Your task to perform on an android device: toggle priority inbox in the gmail app Image 0: 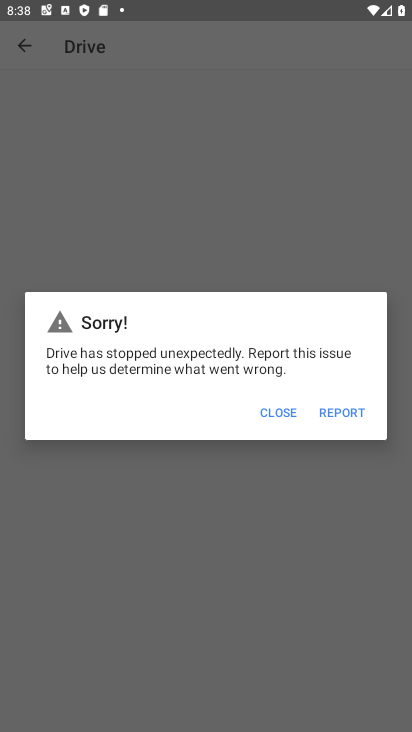
Step 0: press home button
Your task to perform on an android device: toggle priority inbox in the gmail app Image 1: 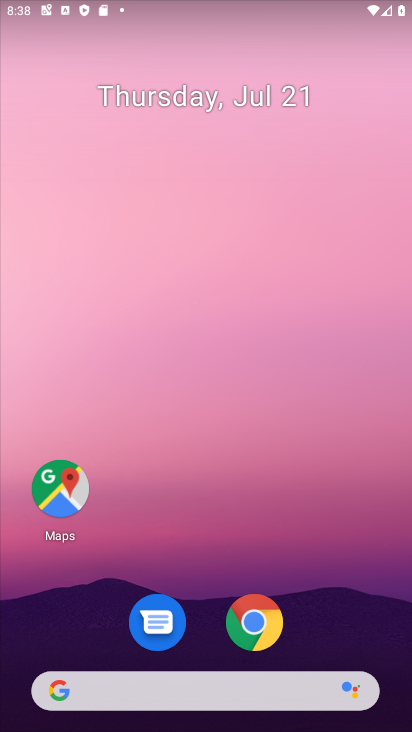
Step 1: drag from (215, 648) to (127, 27)
Your task to perform on an android device: toggle priority inbox in the gmail app Image 2: 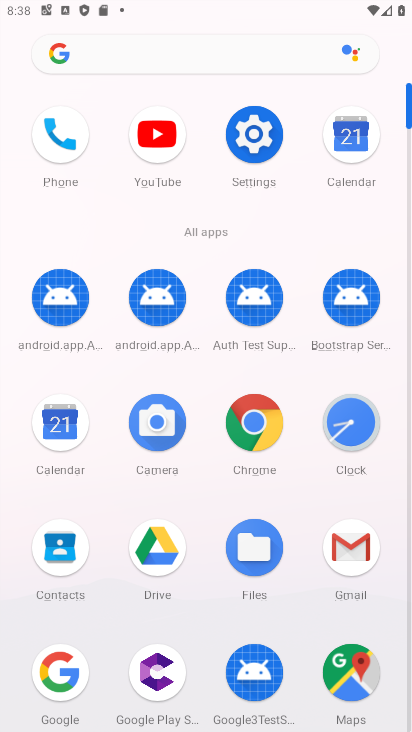
Step 2: click (362, 554)
Your task to perform on an android device: toggle priority inbox in the gmail app Image 3: 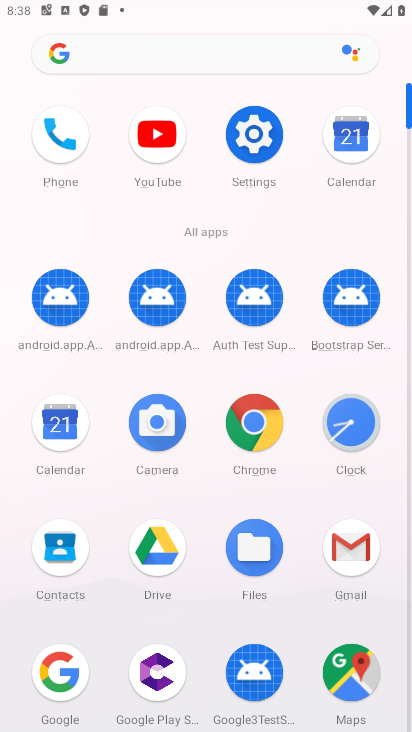
Step 3: click (362, 554)
Your task to perform on an android device: toggle priority inbox in the gmail app Image 4: 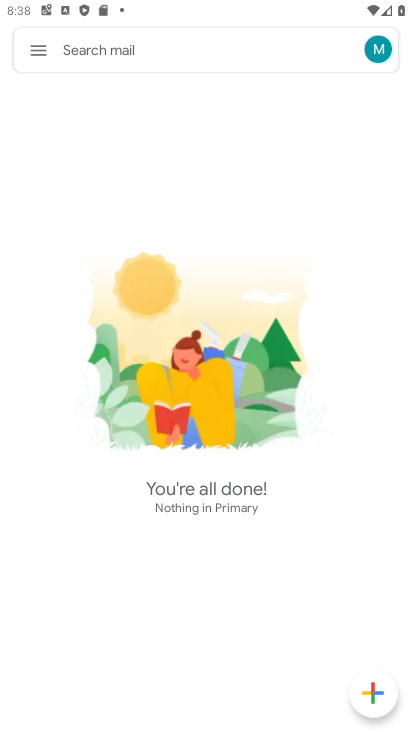
Step 4: click (28, 53)
Your task to perform on an android device: toggle priority inbox in the gmail app Image 5: 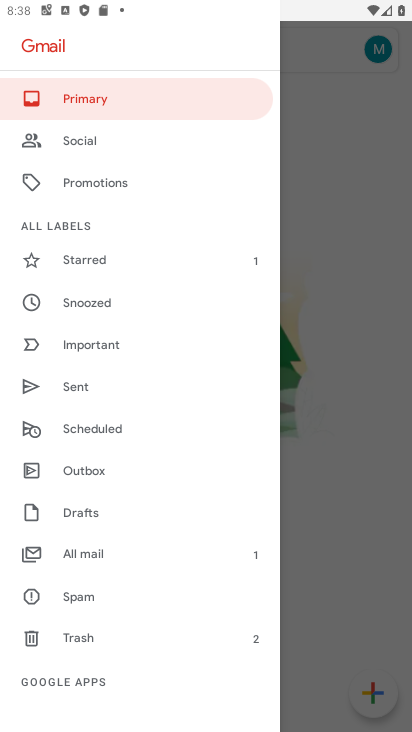
Step 5: drag from (117, 480) to (258, 28)
Your task to perform on an android device: toggle priority inbox in the gmail app Image 6: 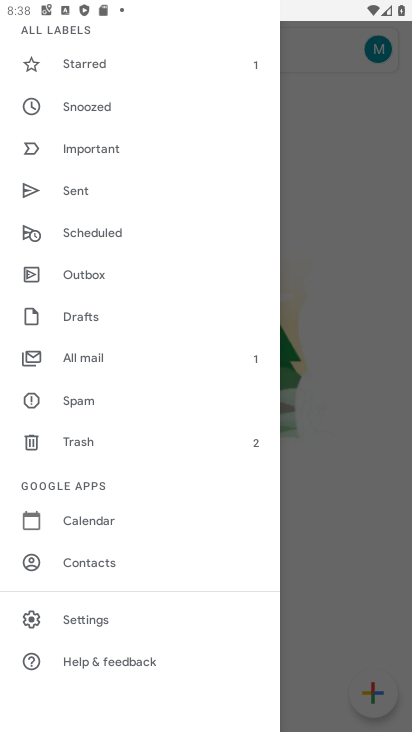
Step 6: click (97, 621)
Your task to perform on an android device: toggle priority inbox in the gmail app Image 7: 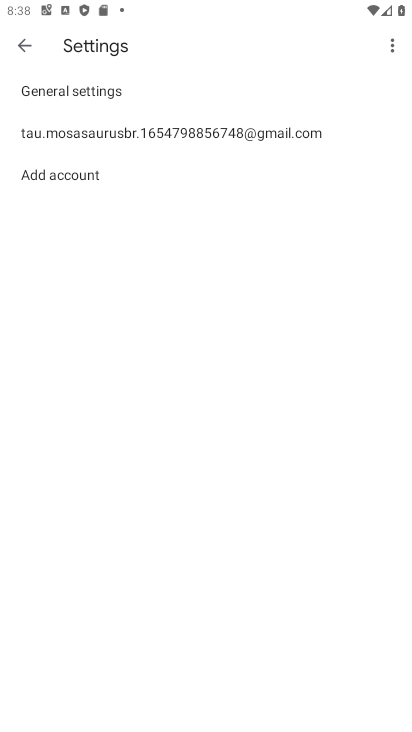
Step 7: click (137, 137)
Your task to perform on an android device: toggle priority inbox in the gmail app Image 8: 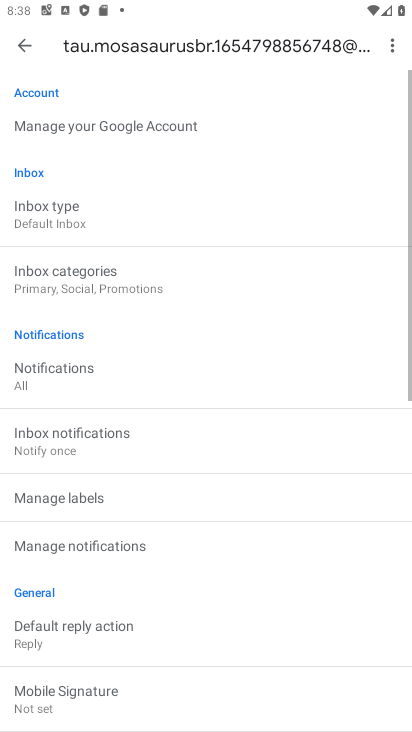
Step 8: click (53, 217)
Your task to perform on an android device: toggle priority inbox in the gmail app Image 9: 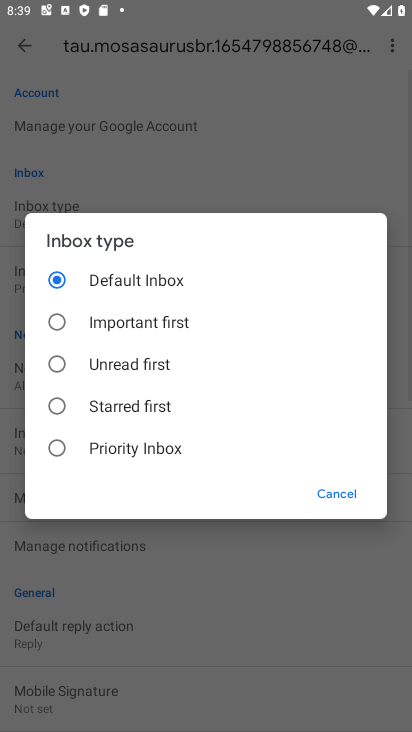
Step 9: click (140, 453)
Your task to perform on an android device: toggle priority inbox in the gmail app Image 10: 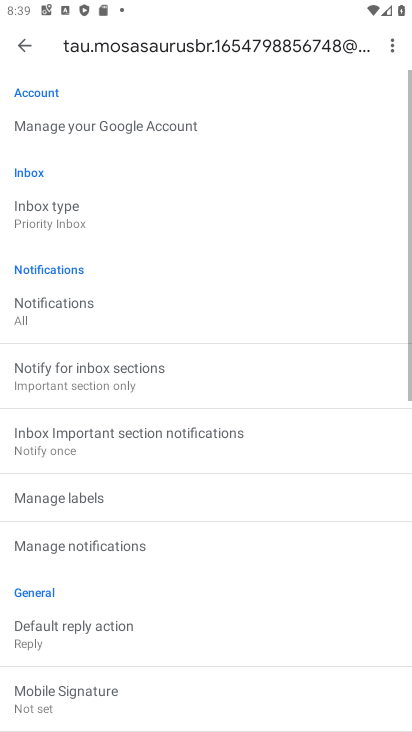
Step 10: task complete